Your task to perform on an android device: empty trash in the gmail app Image 0: 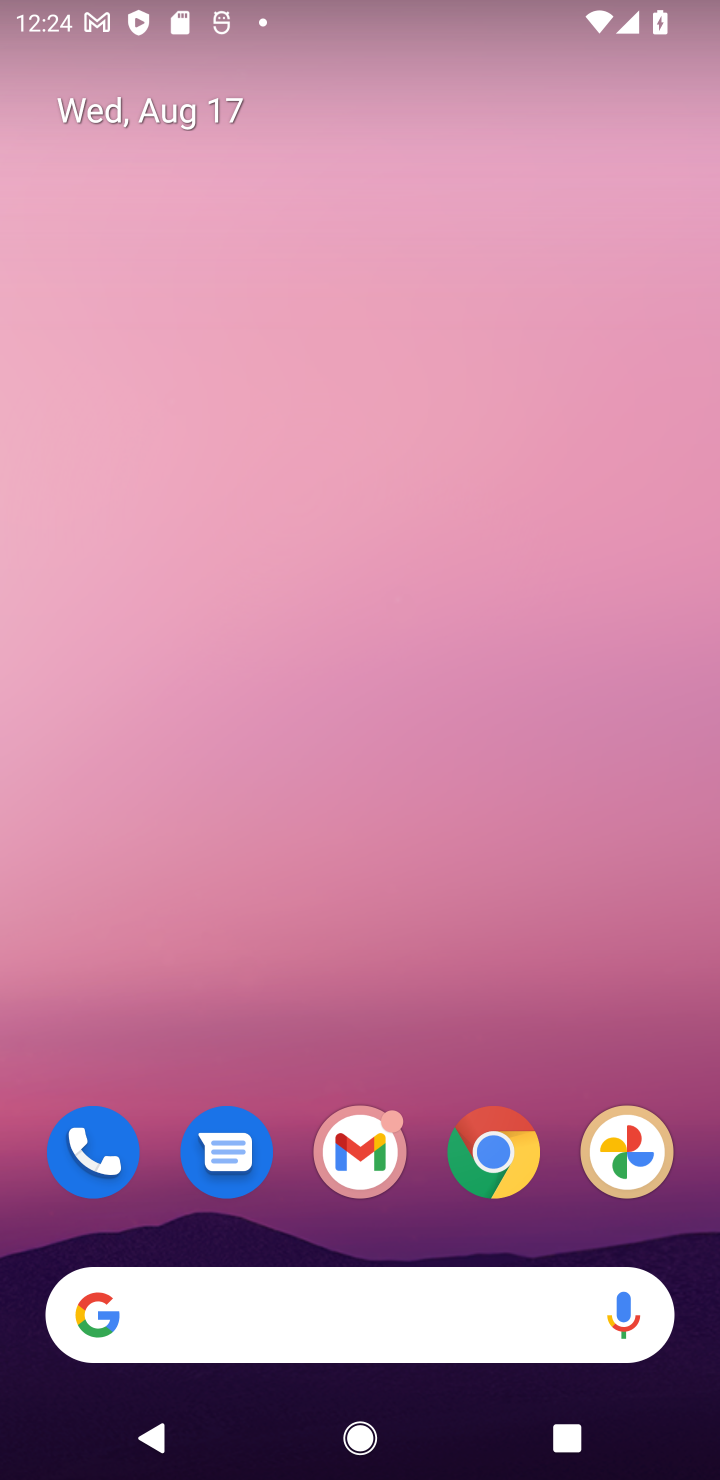
Step 0: drag from (499, 834) to (221, 12)
Your task to perform on an android device: empty trash in the gmail app Image 1: 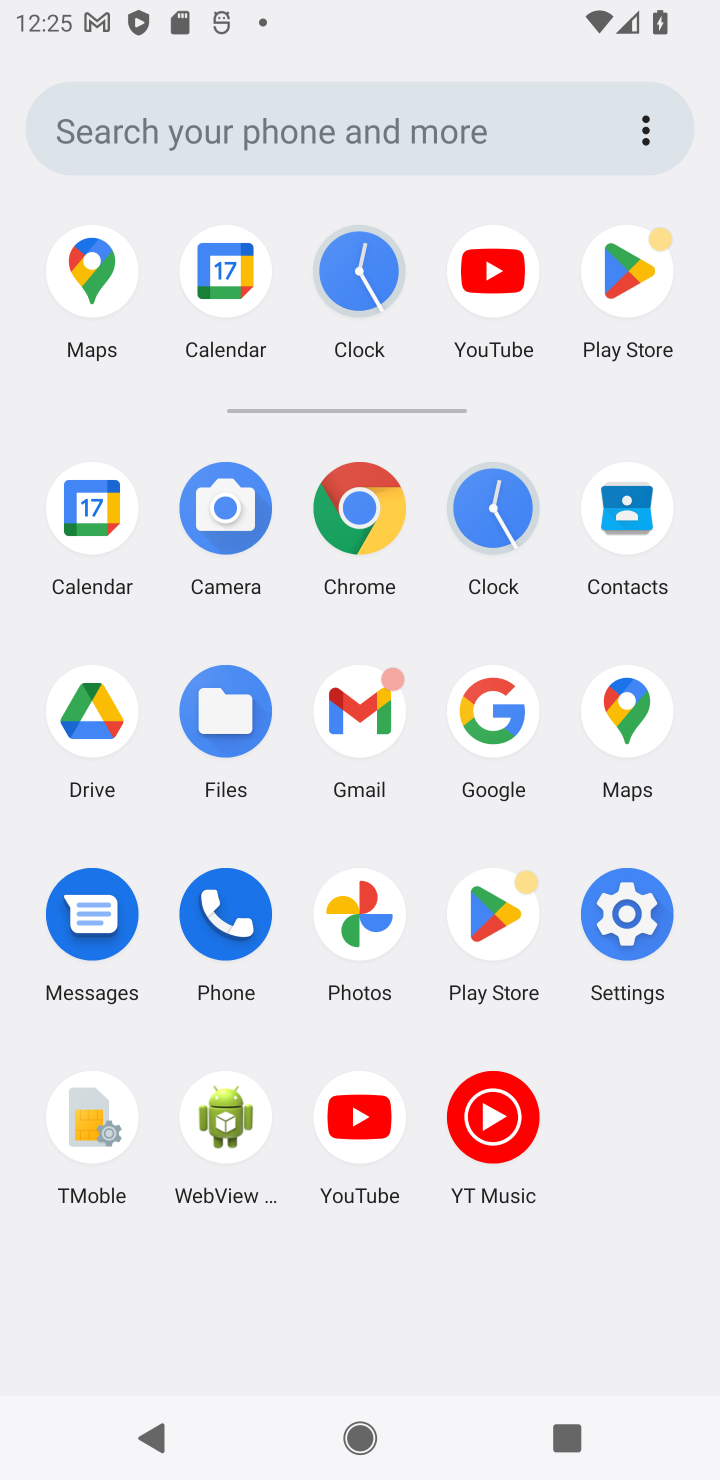
Step 1: click (332, 687)
Your task to perform on an android device: empty trash in the gmail app Image 2: 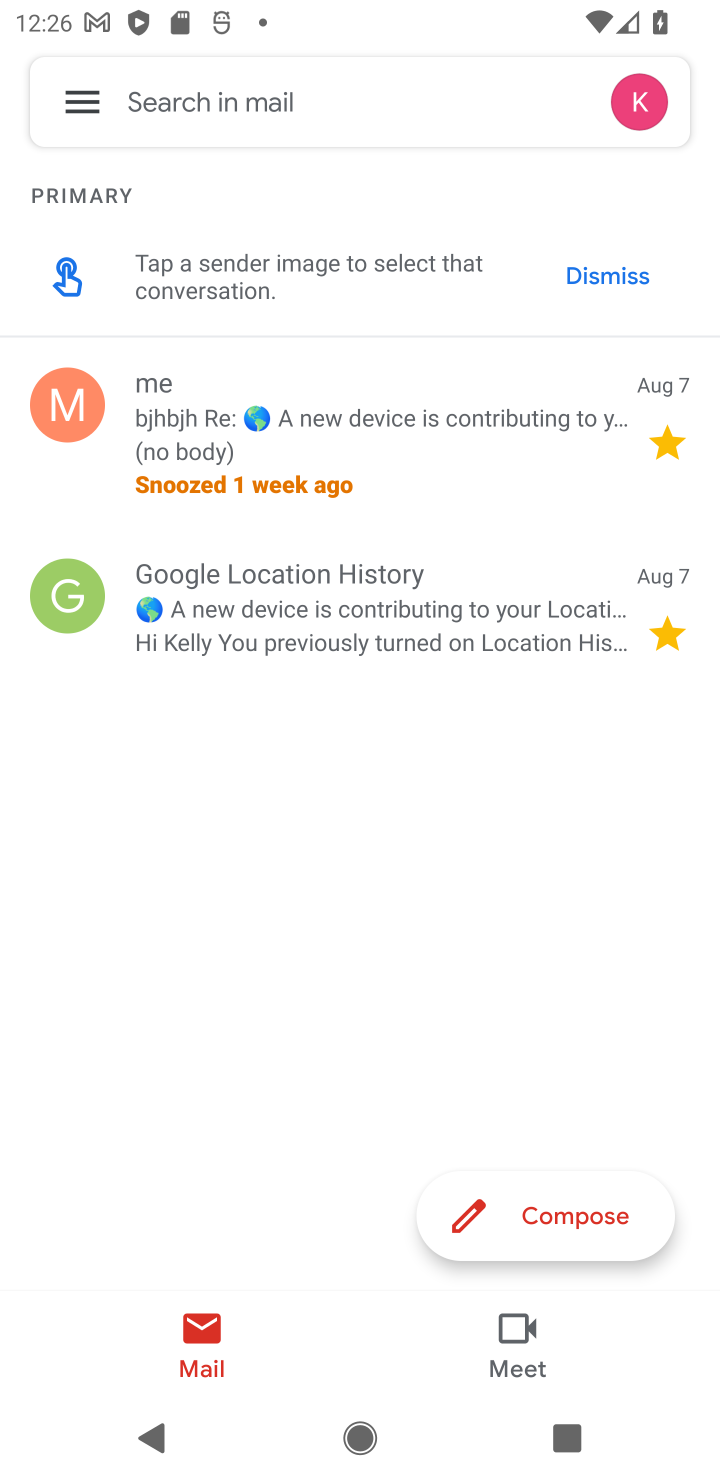
Step 2: click (92, 111)
Your task to perform on an android device: empty trash in the gmail app Image 3: 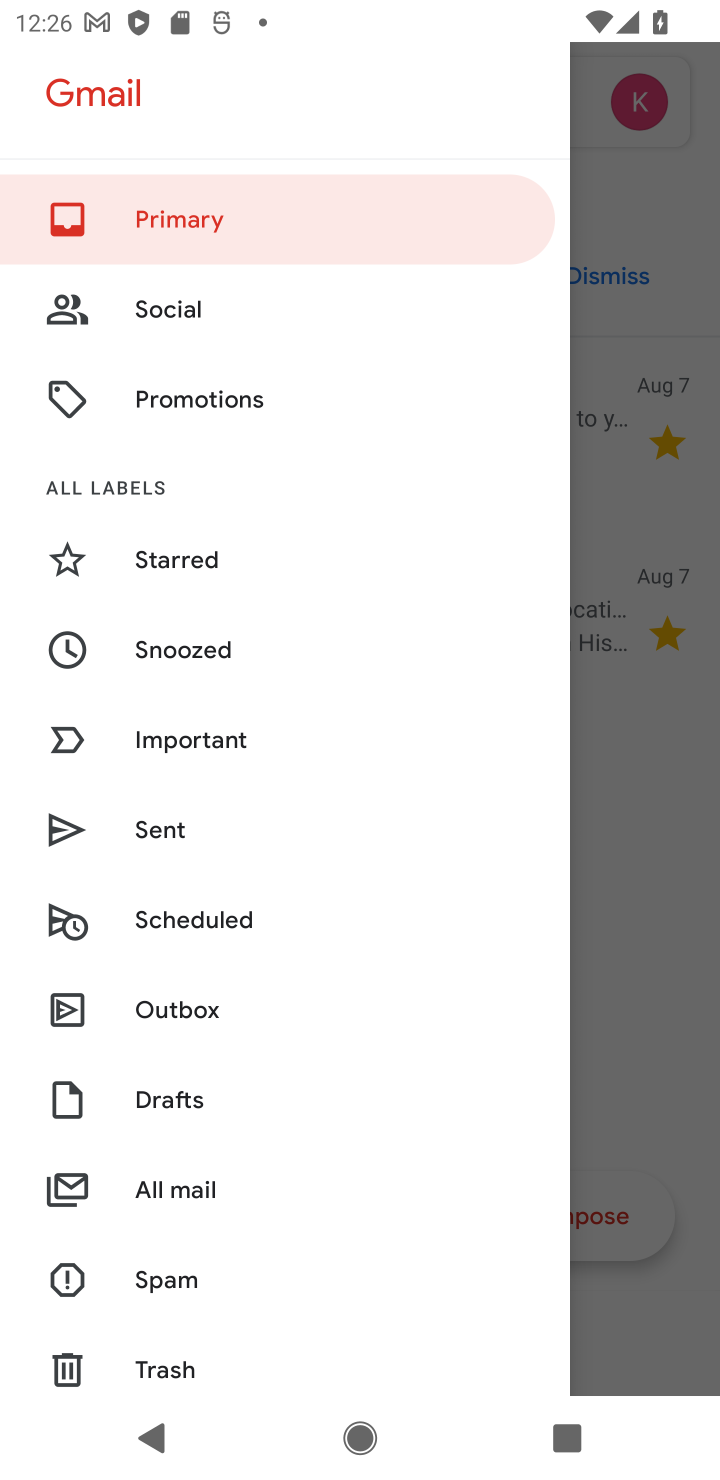
Step 3: click (175, 1379)
Your task to perform on an android device: empty trash in the gmail app Image 4: 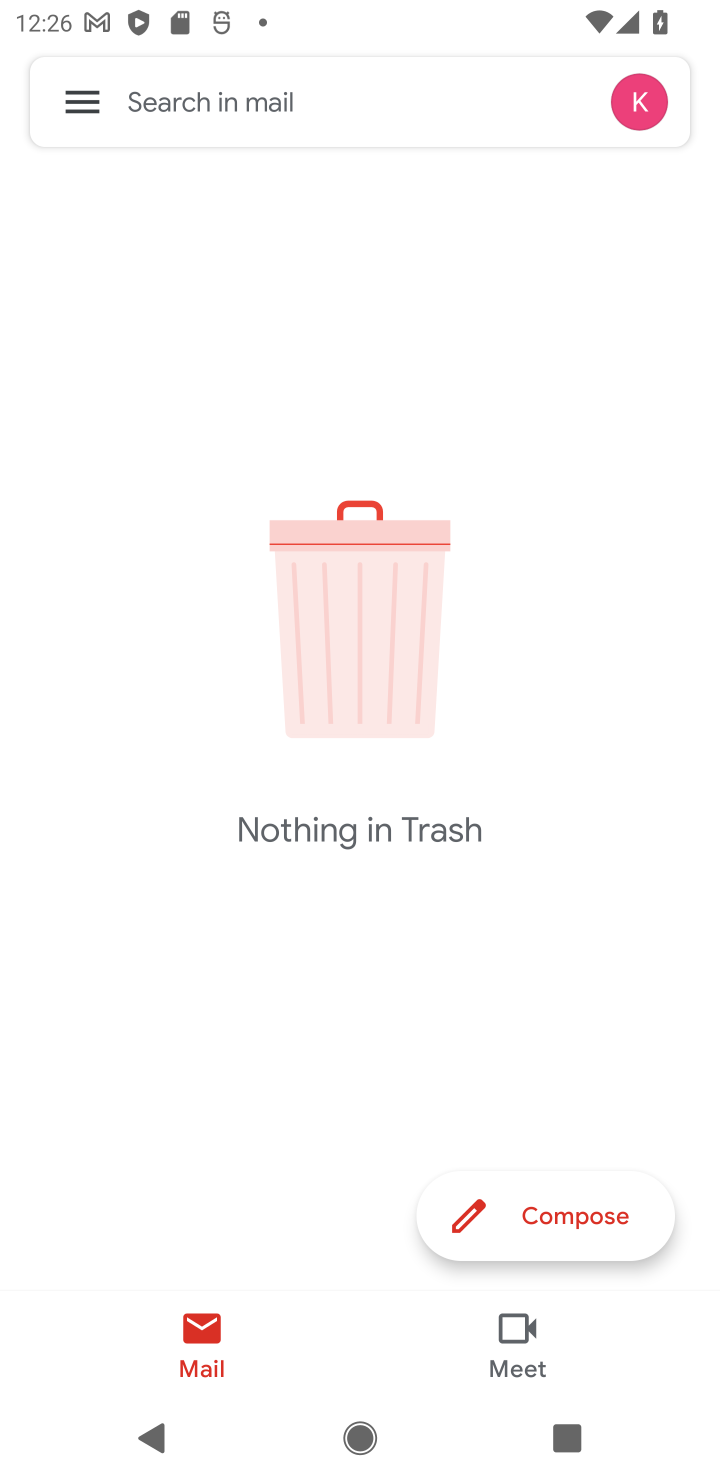
Step 4: task complete